Your task to perform on an android device: change text size in settings app Image 0: 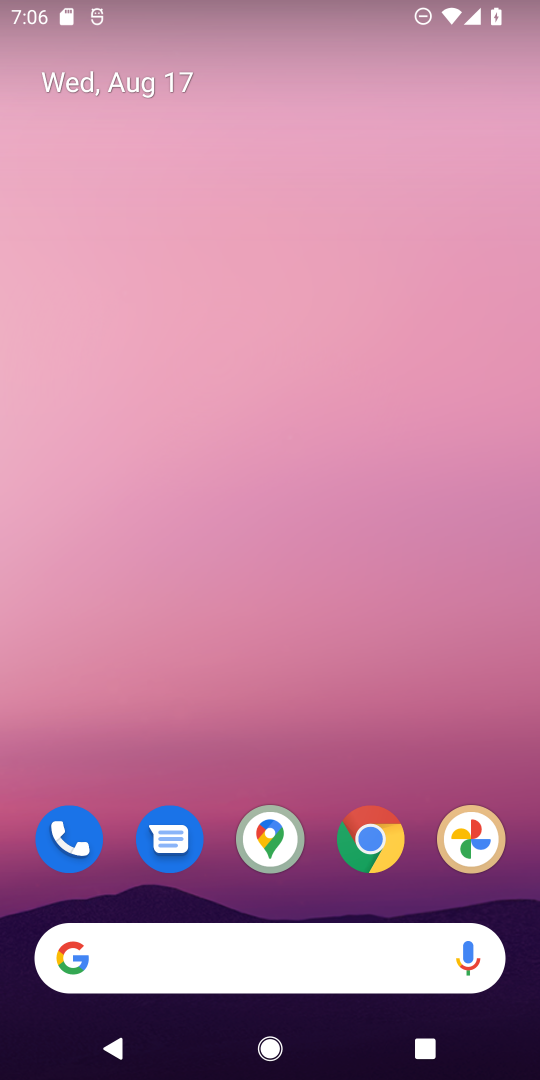
Step 0: drag from (272, 910) to (278, 62)
Your task to perform on an android device: change text size in settings app Image 1: 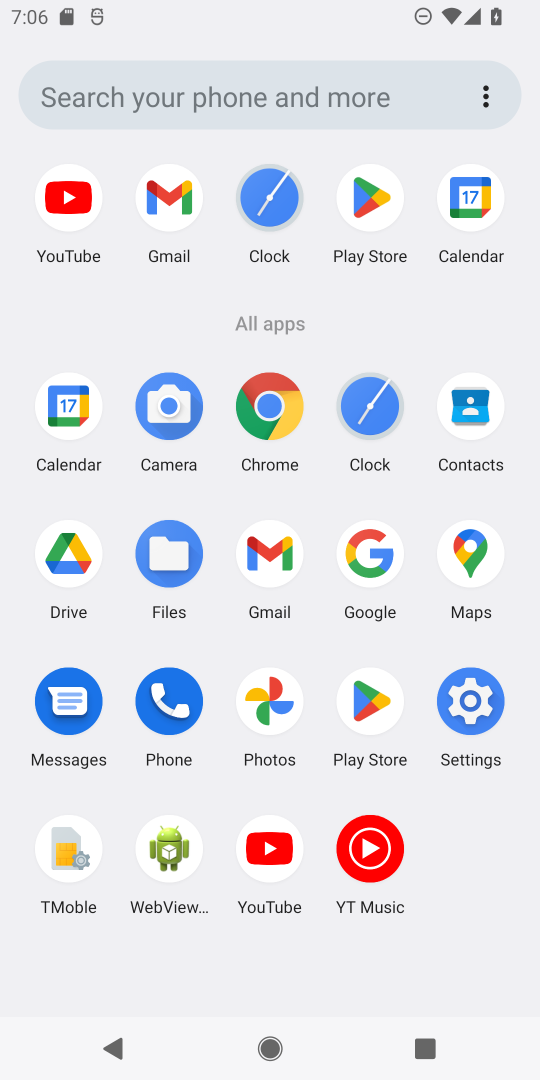
Step 1: click (477, 721)
Your task to perform on an android device: change text size in settings app Image 2: 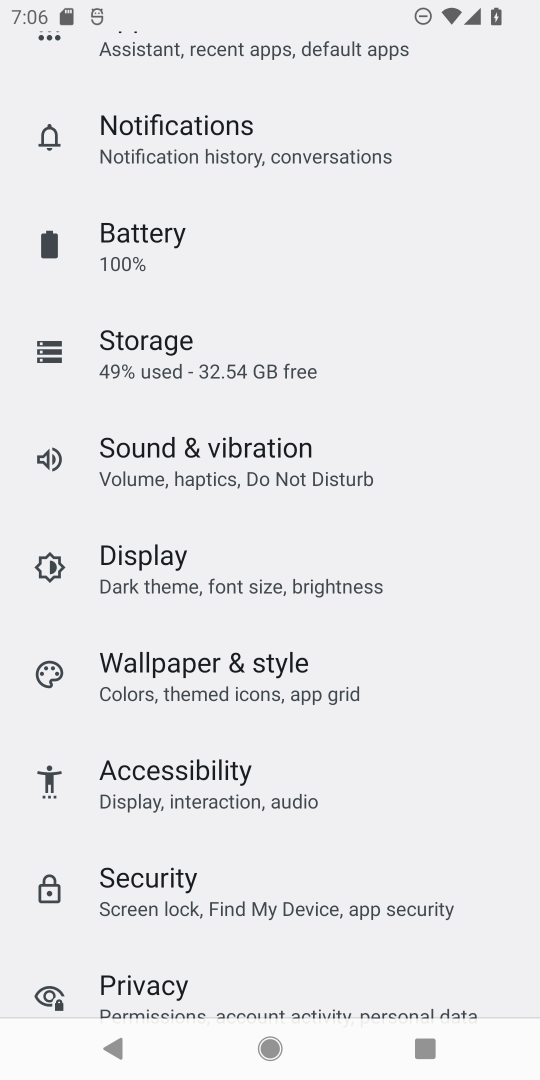
Step 2: drag from (63, 659) to (79, 772)
Your task to perform on an android device: change text size in settings app Image 3: 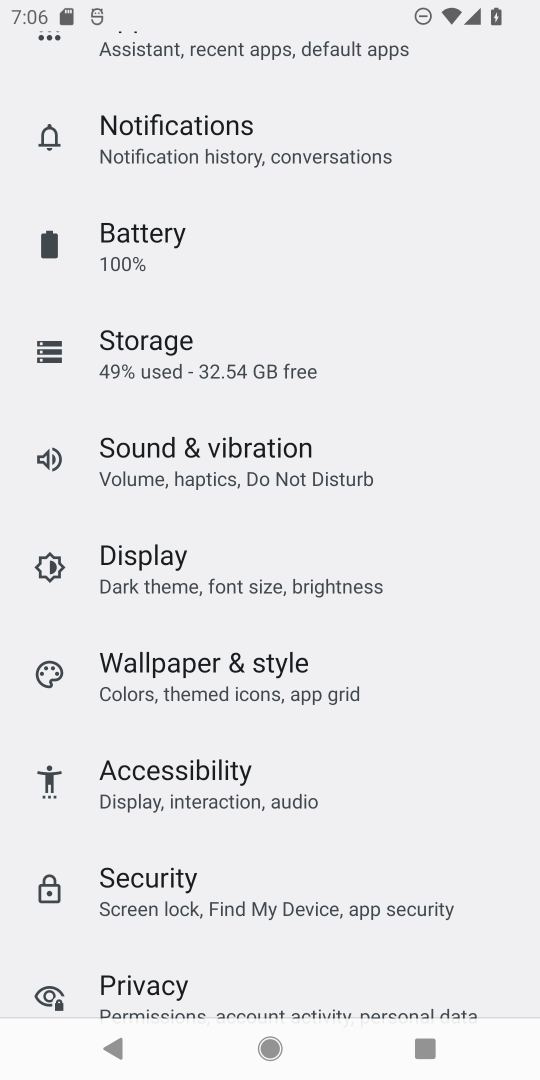
Step 3: drag from (243, 274) to (238, 1069)
Your task to perform on an android device: change text size in settings app Image 4: 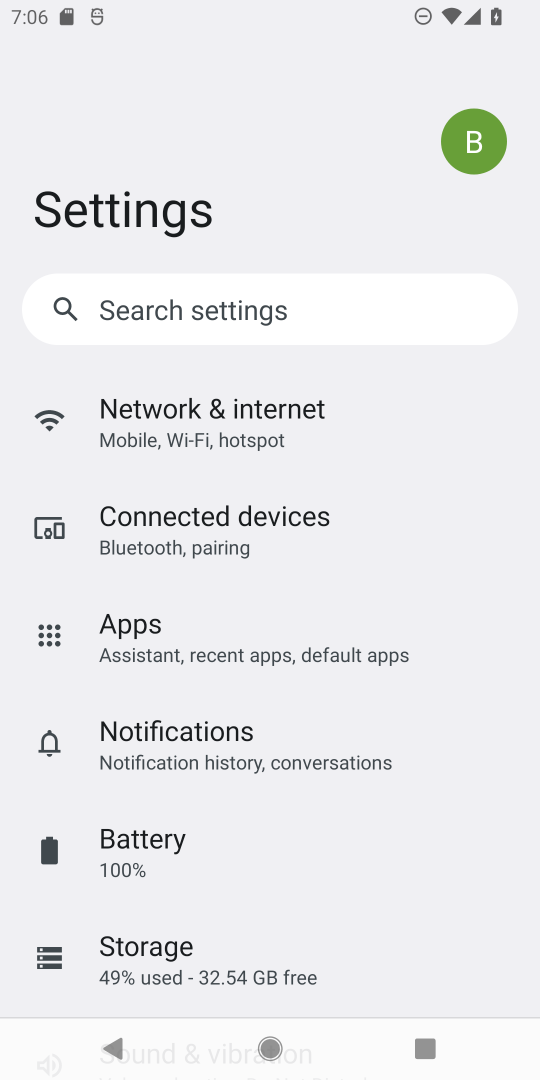
Step 4: drag from (200, 888) to (171, 397)
Your task to perform on an android device: change text size in settings app Image 5: 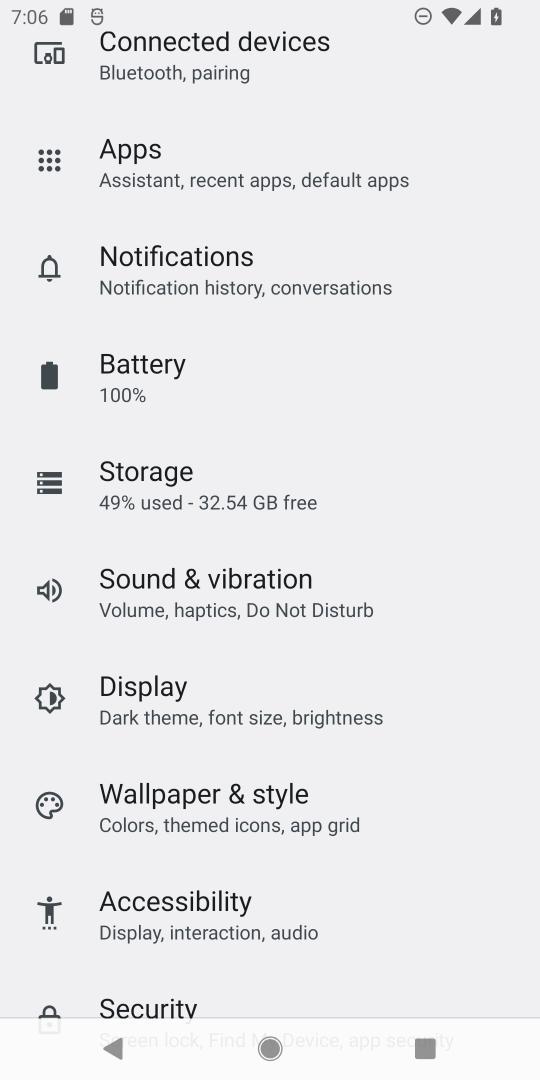
Step 5: click (155, 728)
Your task to perform on an android device: change text size in settings app Image 6: 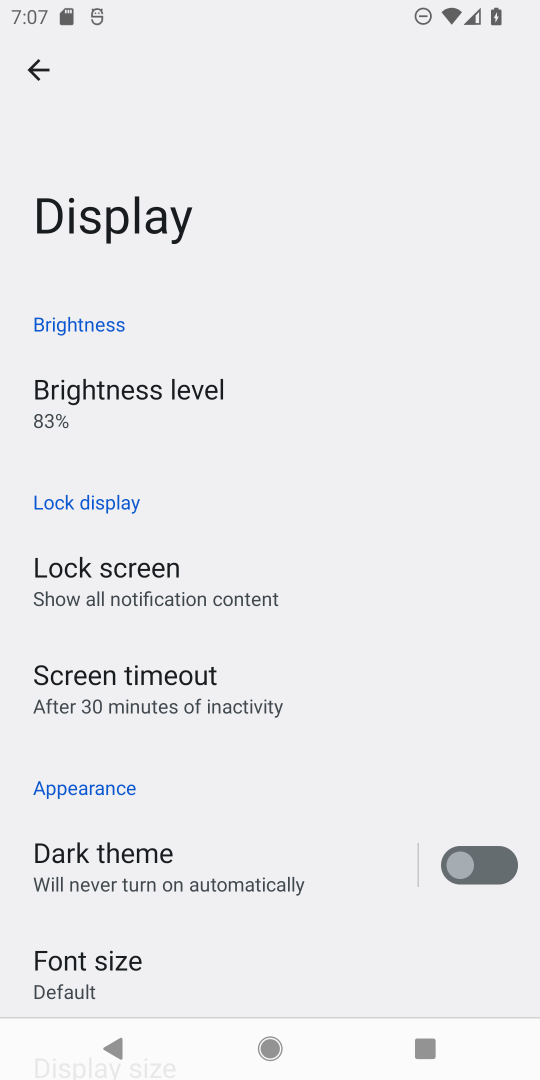
Step 6: drag from (155, 728) to (142, 161)
Your task to perform on an android device: change text size in settings app Image 7: 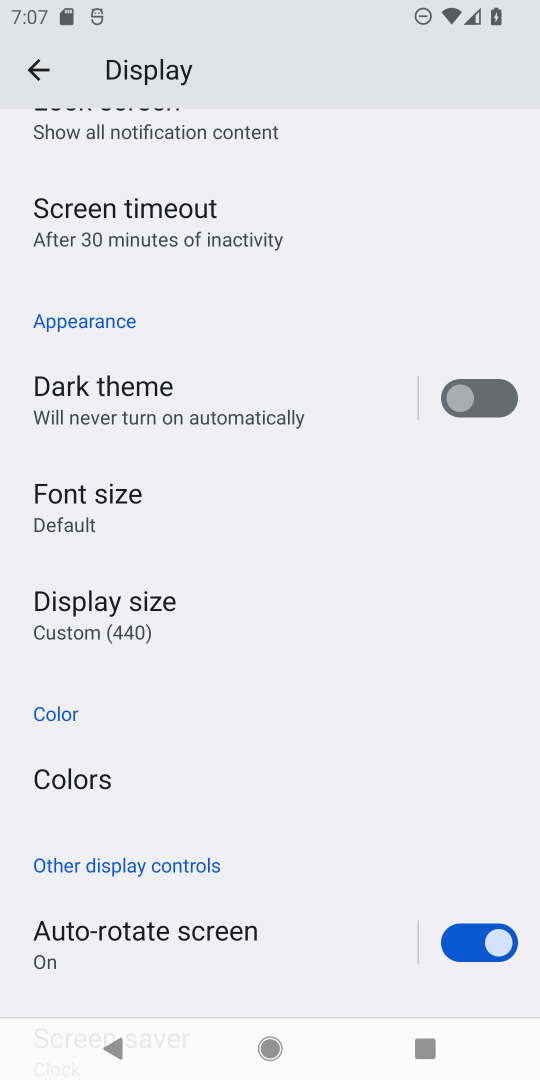
Step 7: click (78, 486)
Your task to perform on an android device: change text size in settings app Image 8: 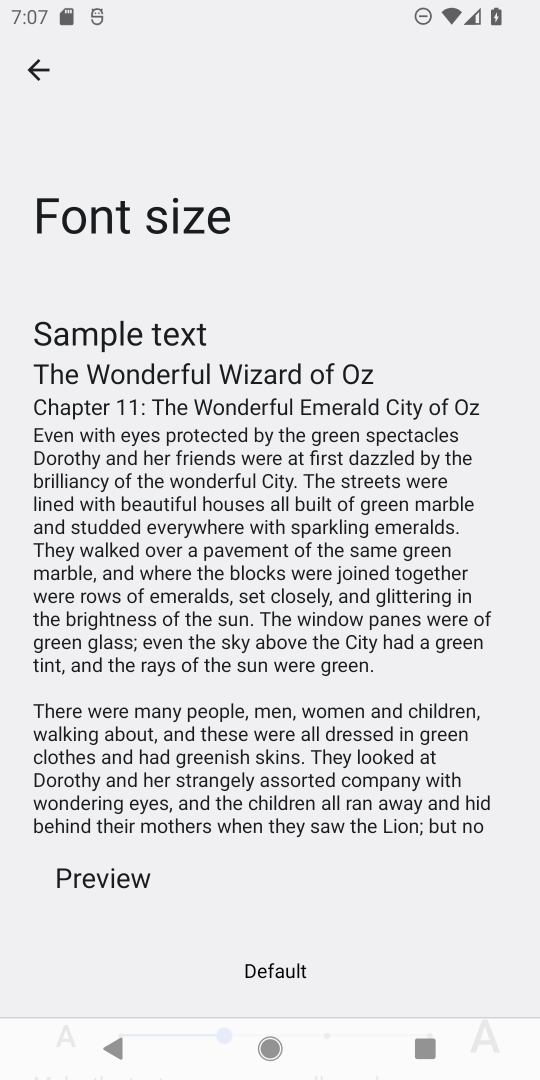
Step 8: drag from (436, 924) to (192, 223)
Your task to perform on an android device: change text size in settings app Image 9: 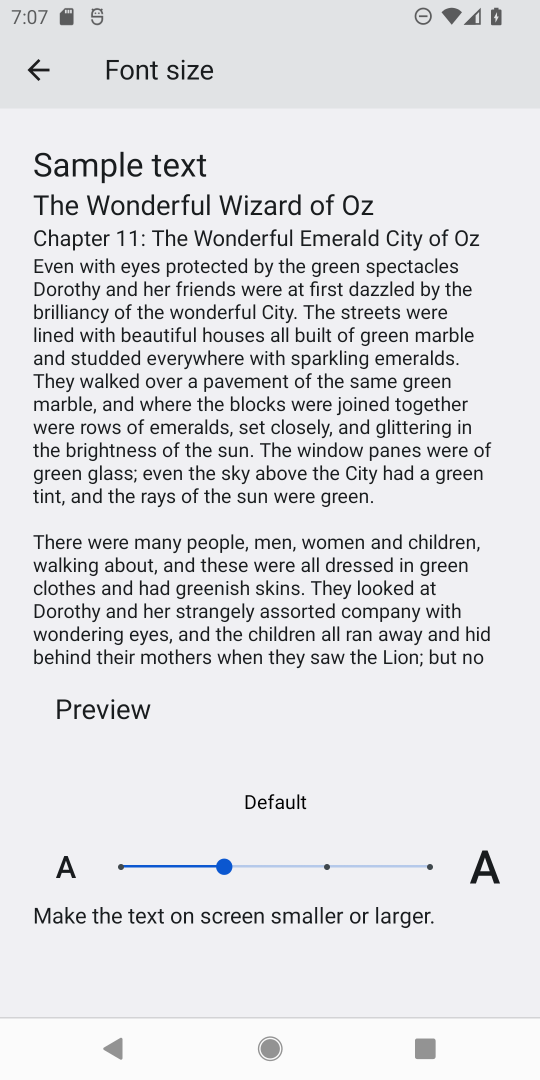
Step 9: click (332, 870)
Your task to perform on an android device: change text size in settings app Image 10: 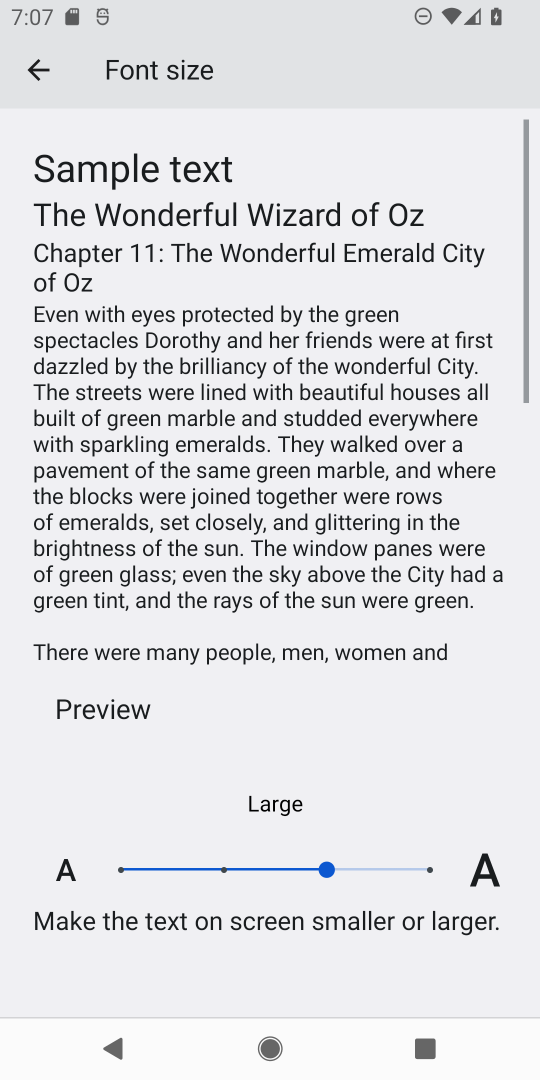
Step 10: task complete